Your task to perform on an android device: turn pop-ups off in chrome Image 0: 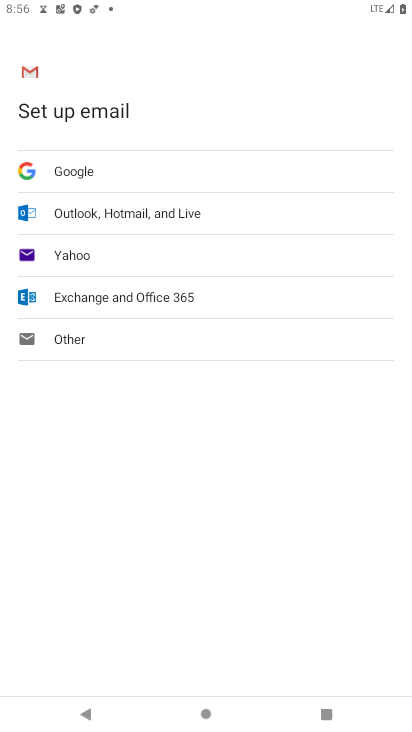
Step 0: press home button
Your task to perform on an android device: turn pop-ups off in chrome Image 1: 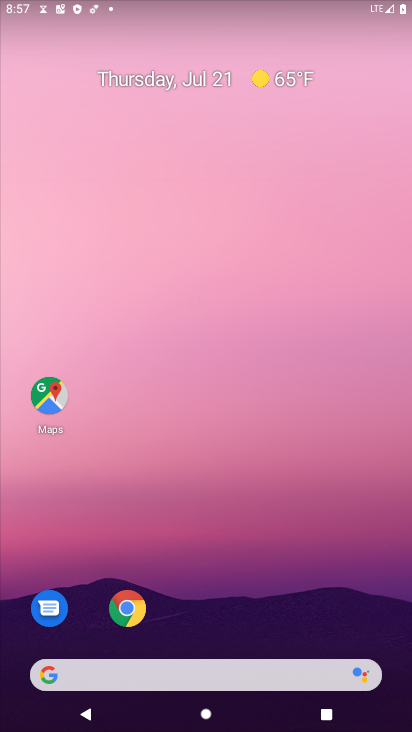
Step 1: click (128, 608)
Your task to perform on an android device: turn pop-ups off in chrome Image 2: 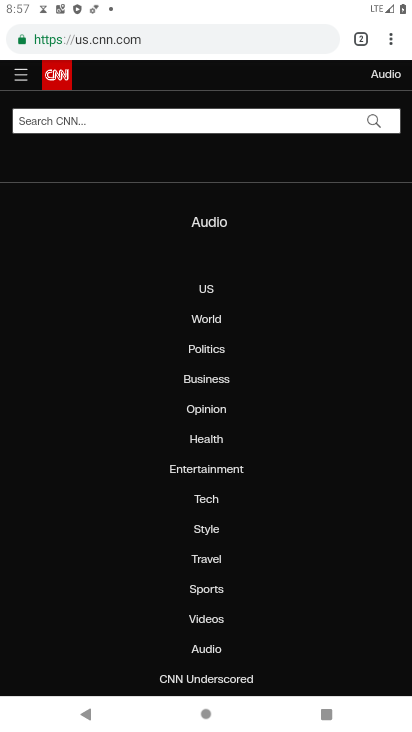
Step 2: click (392, 38)
Your task to perform on an android device: turn pop-ups off in chrome Image 3: 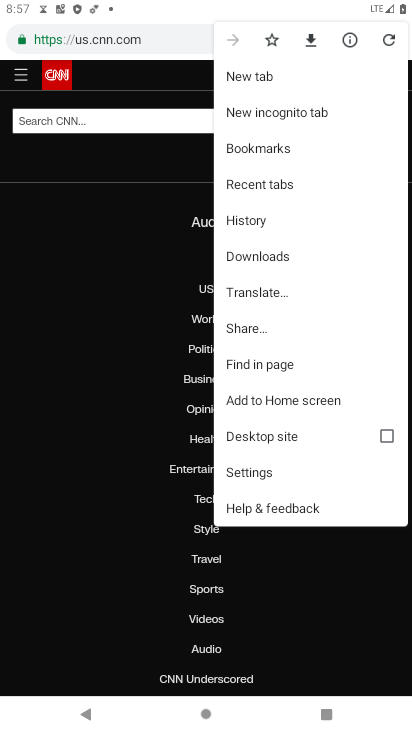
Step 3: click (258, 468)
Your task to perform on an android device: turn pop-ups off in chrome Image 4: 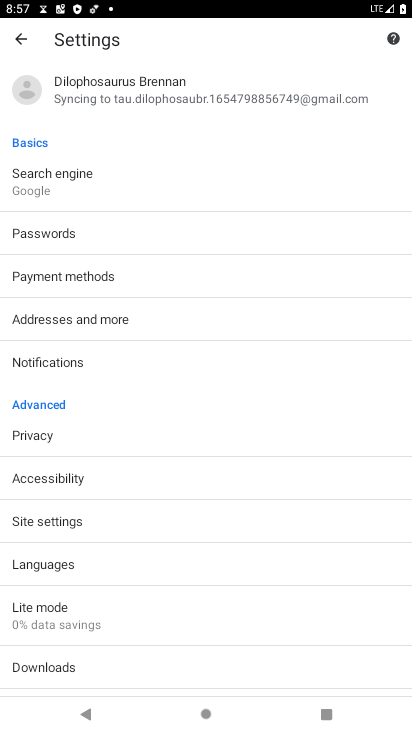
Step 4: click (47, 522)
Your task to perform on an android device: turn pop-ups off in chrome Image 5: 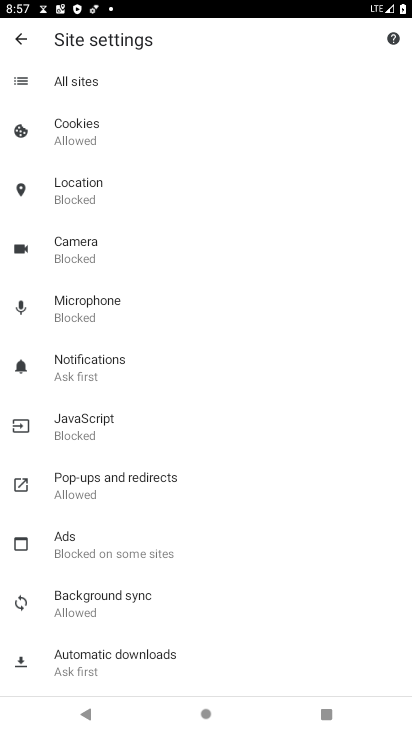
Step 5: click (71, 473)
Your task to perform on an android device: turn pop-ups off in chrome Image 6: 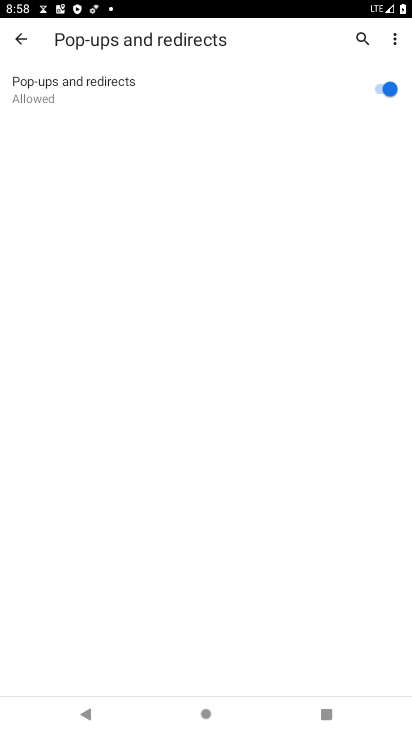
Step 6: click (379, 92)
Your task to perform on an android device: turn pop-ups off in chrome Image 7: 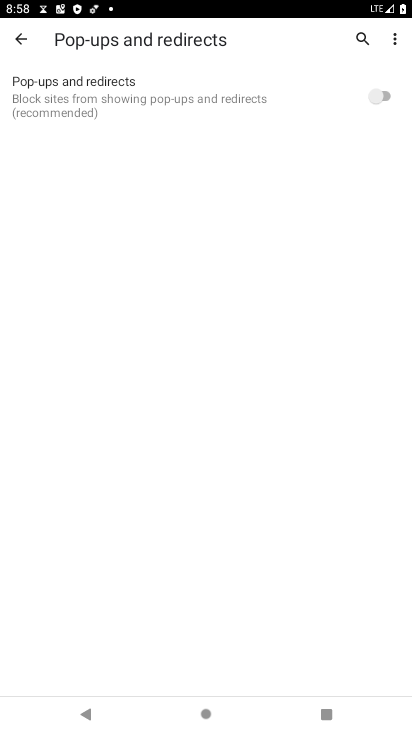
Step 7: task complete